Your task to perform on an android device: set an alarm Image 0: 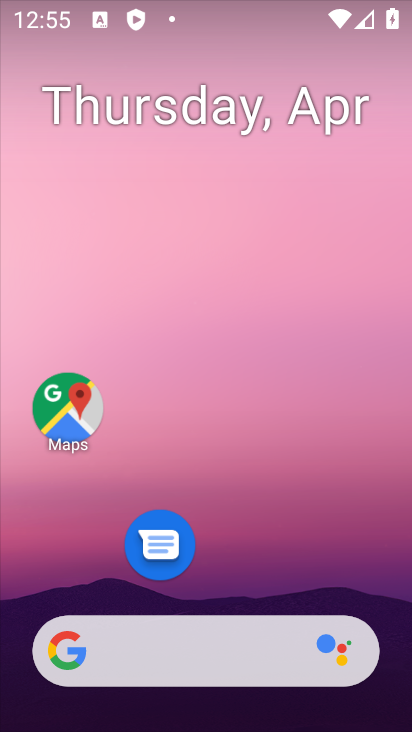
Step 0: drag from (298, 563) to (324, 114)
Your task to perform on an android device: set an alarm Image 1: 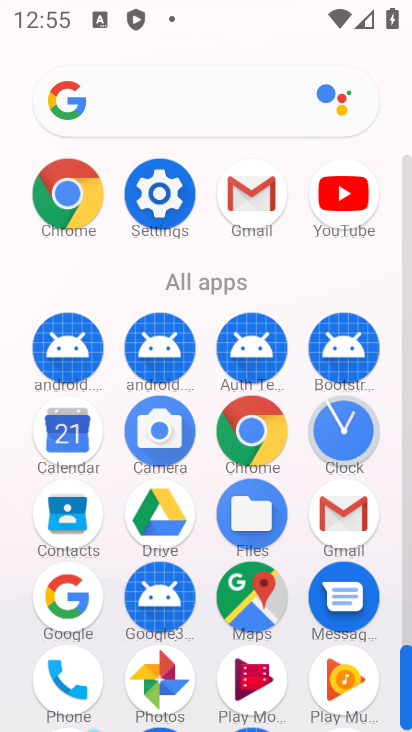
Step 1: click (348, 437)
Your task to perform on an android device: set an alarm Image 2: 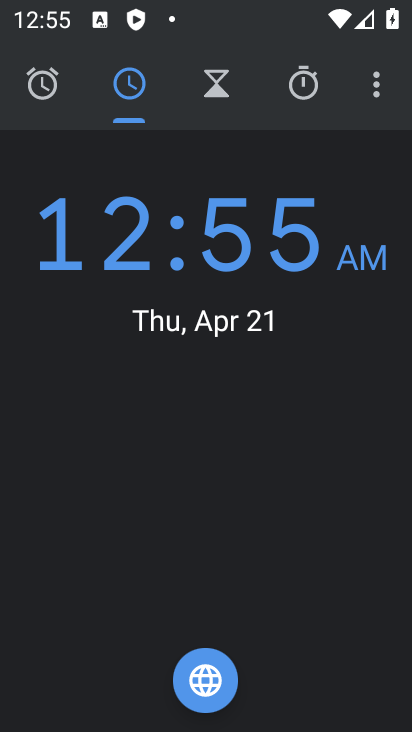
Step 2: click (53, 59)
Your task to perform on an android device: set an alarm Image 3: 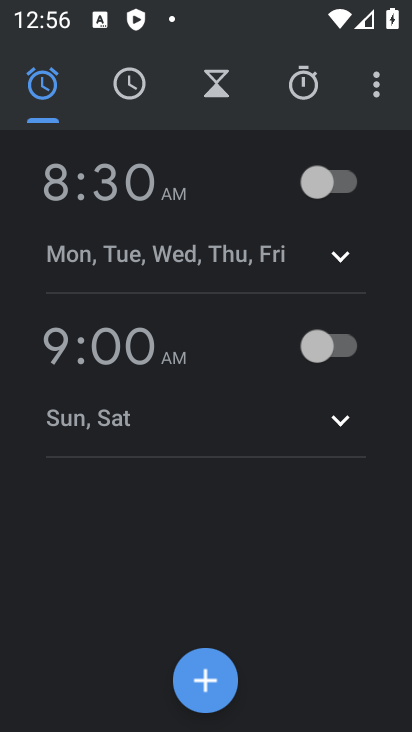
Step 3: click (196, 661)
Your task to perform on an android device: set an alarm Image 4: 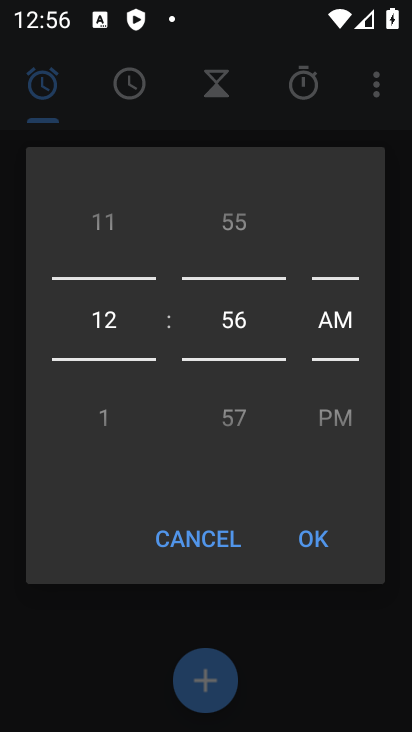
Step 4: click (329, 543)
Your task to perform on an android device: set an alarm Image 5: 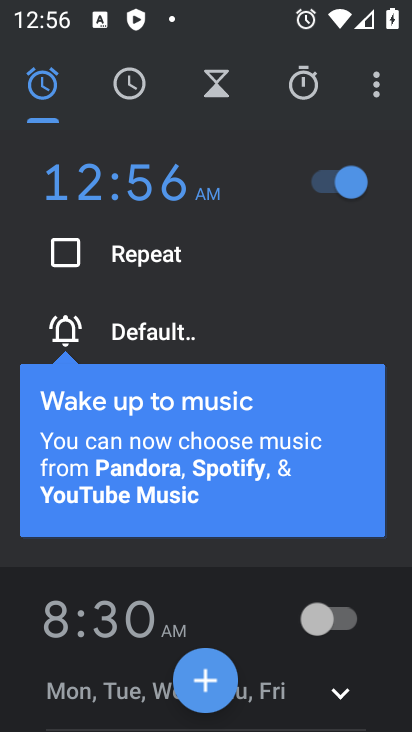
Step 5: task complete